Your task to perform on an android device: turn off data saver in the chrome app Image 0: 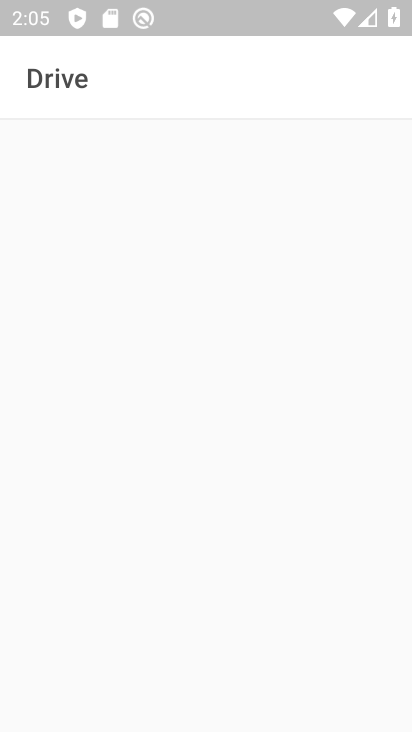
Step 0: drag from (191, 582) to (194, 376)
Your task to perform on an android device: turn off data saver in the chrome app Image 1: 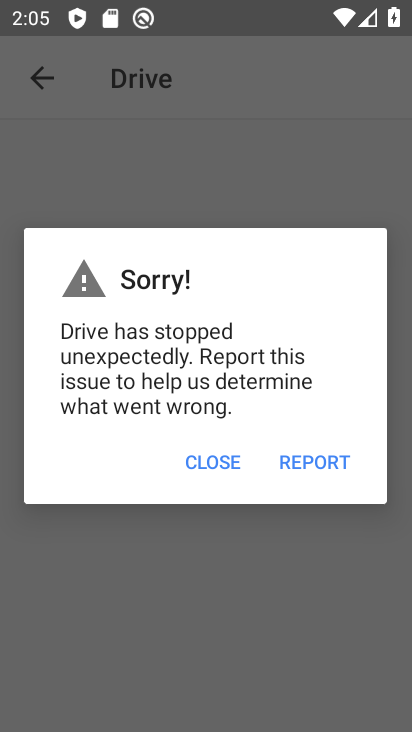
Step 1: press home button
Your task to perform on an android device: turn off data saver in the chrome app Image 2: 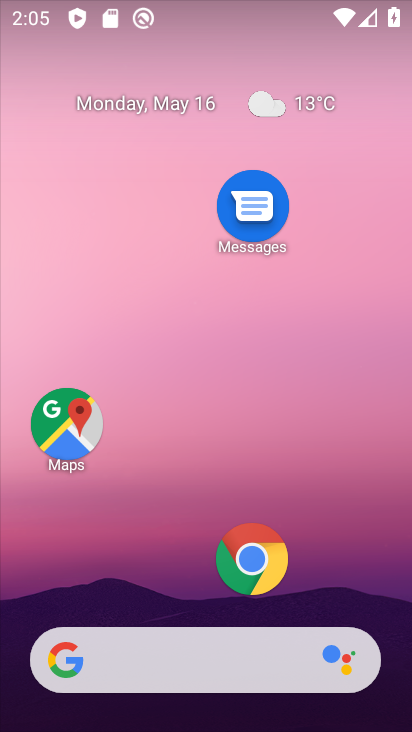
Step 2: drag from (166, 579) to (136, 266)
Your task to perform on an android device: turn off data saver in the chrome app Image 3: 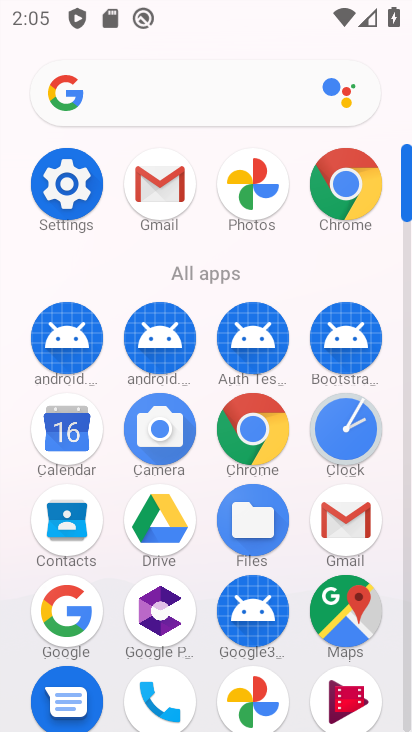
Step 3: click (254, 422)
Your task to perform on an android device: turn off data saver in the chrome app Image 4: 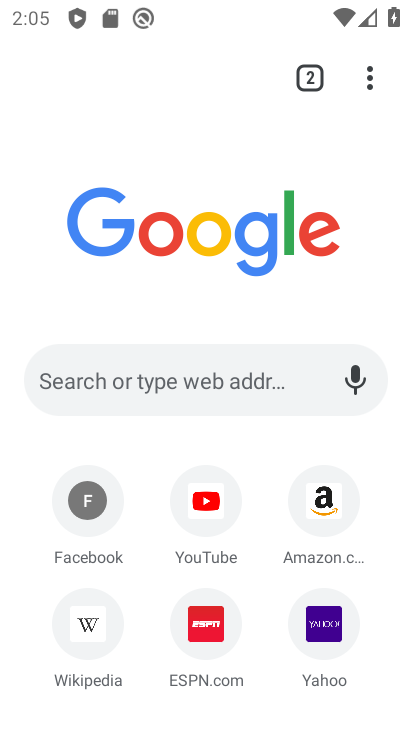
Step 4: click (368, 77)
Your task to perform on an android device: turn off data saver in the chrome app Image 5: 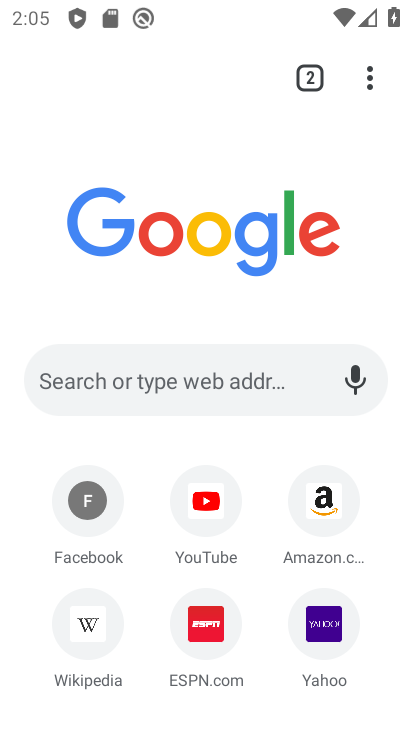
Step 5: click (369, 84)
Your task to perform on an android device: turn off data saver in the chrome app Image 6: 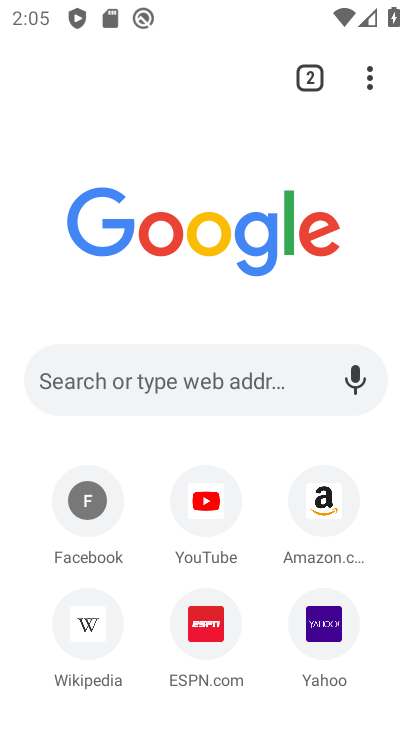
Step 6: click (368, 86)
Your task to perform on an android device: turn off data saver in the chrome app Image 7: 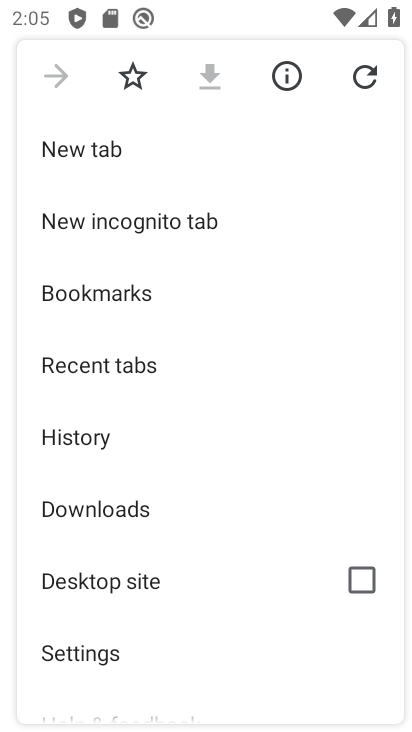
Step 7: click (63, 661)
Your task to perform on an android device: turn off data saver in the chrome app Image 8: 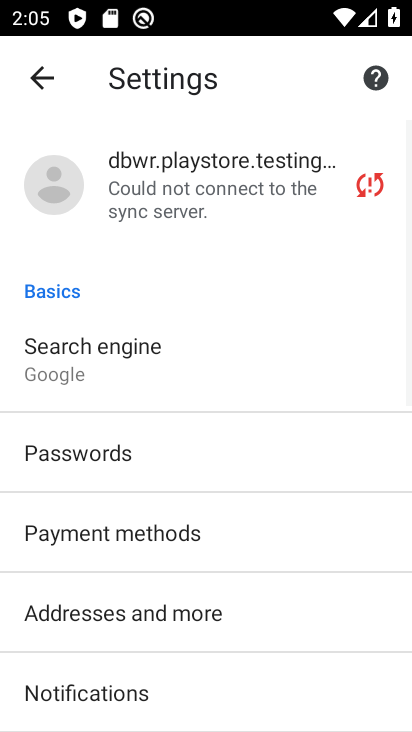
Step 8: drag from (106, 610) to (154, 275)
Your task to perform on an android device: turn off data saver in the chrome app Image 9: 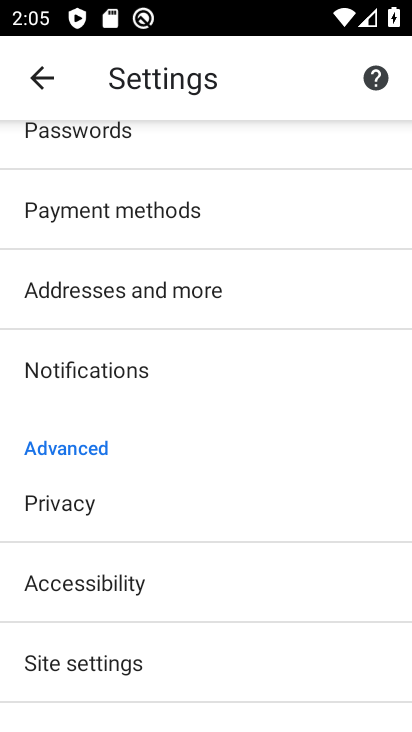
Step 9: drag from (118, 626) to (192, 356)
Your task to perform on an android device: turn off data saver in the chrome app Image 10: 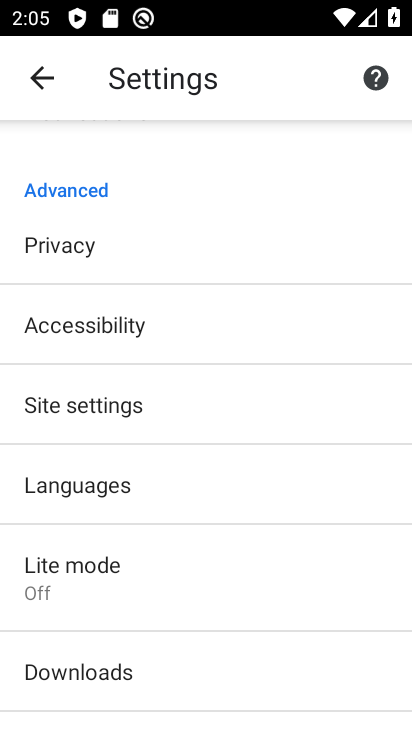
Step 10: click (50, 594)
Your task to perform on an android device: turn off data saver in the chrome app Image 11: 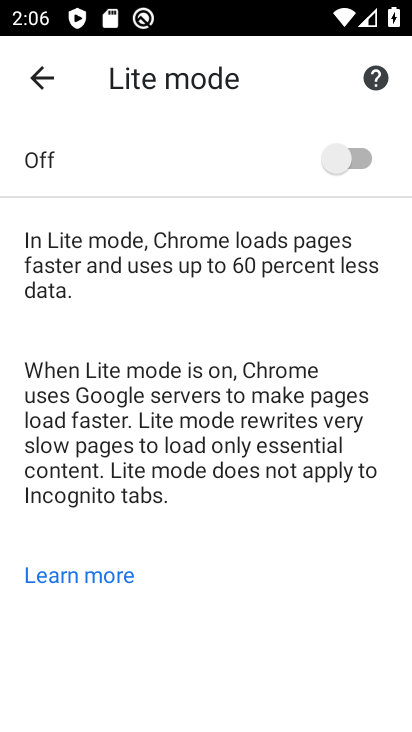
Step 11: task complete